Your task to perform on an android device: Go to privacy settings Image 0: 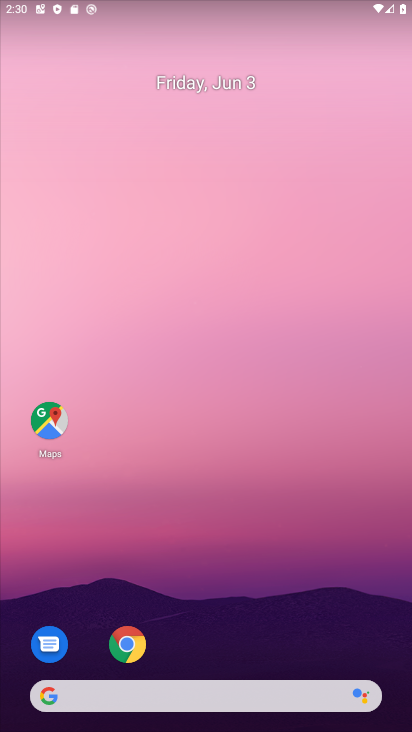
Step 0: drag from (194, 651) to (198, 291)
Your task to perform on an android device: Go to privacy settings Image 1: 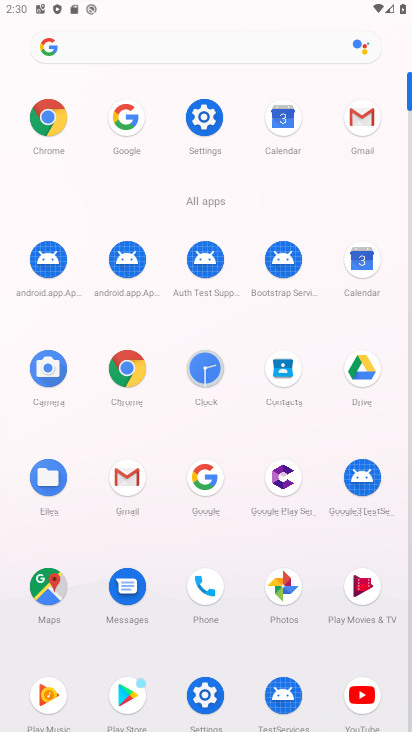
Step 1: click (197, 124)
Your task to perform on an android device: Go to privacy settings Image 2: 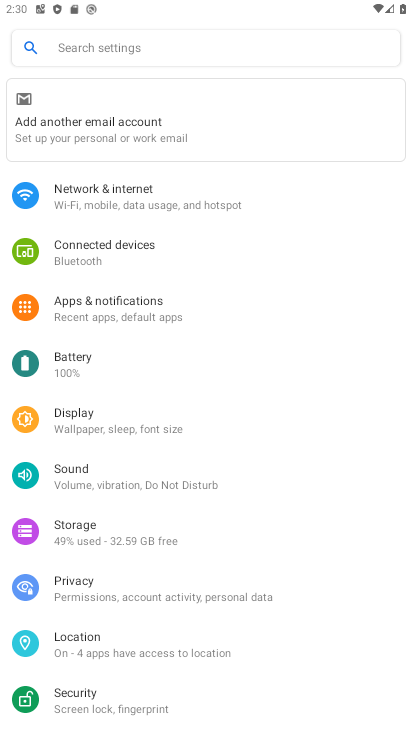
Step 2: click (134, 583)
Your task to perform on an android device: Go to privacy settings Image 3: 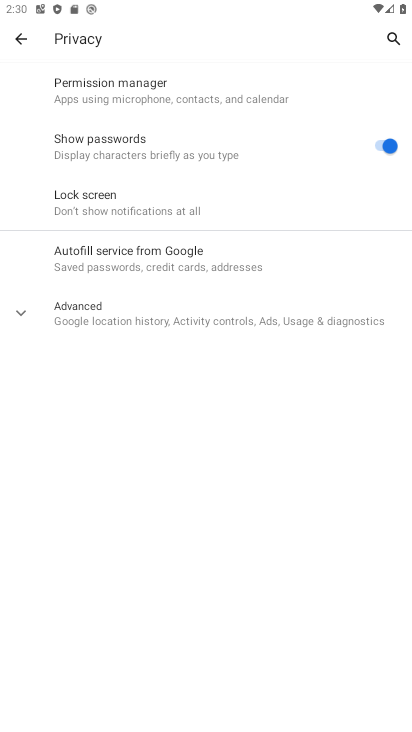
Step 3: task complete